Your task to perform on an android device: Check the weather Image 0: 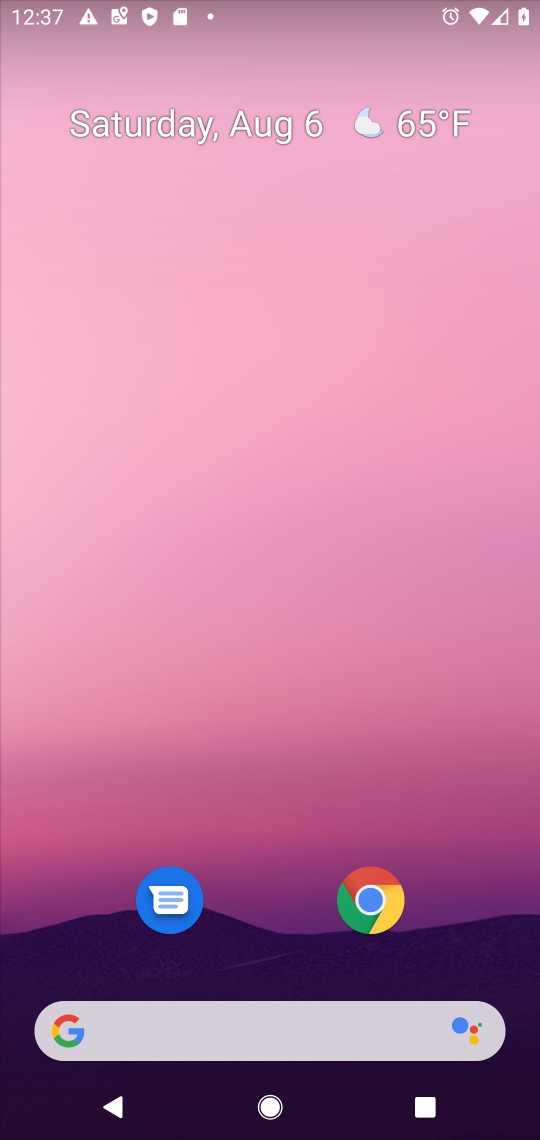
Step 0: click (355, 128)
Your task to perform on an android device: Check the weather Image 1: 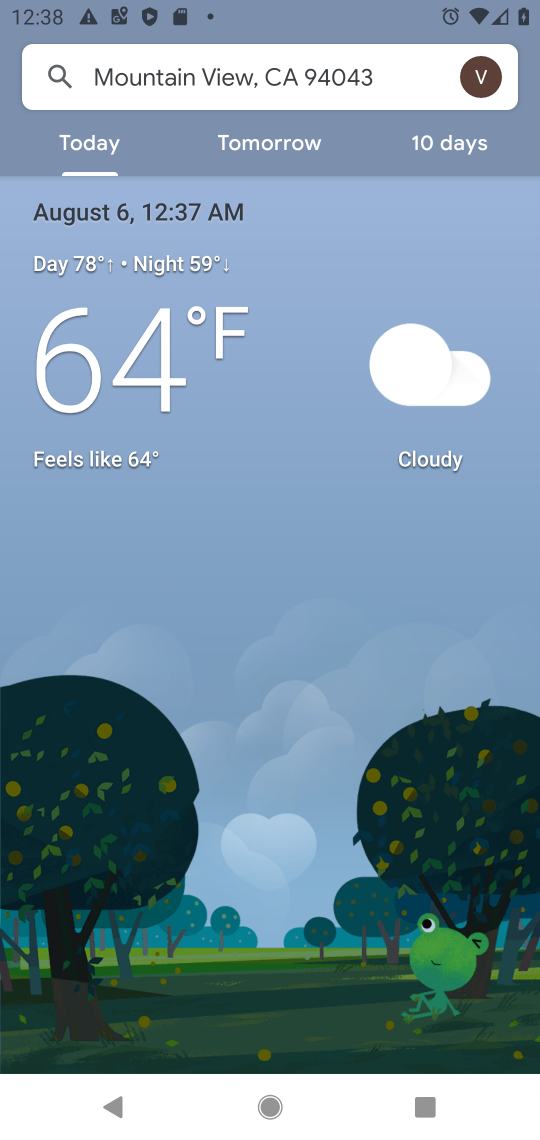
Step 1: task complete